Your task to perform on an android device: Open settings Image 0: 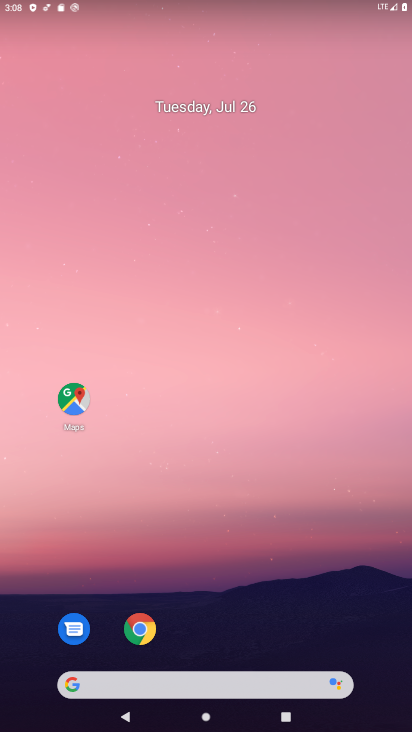
Step 0: drag from (224, 699) to (234, 92)
Your task to perform on an android device: Open settings Image 1: 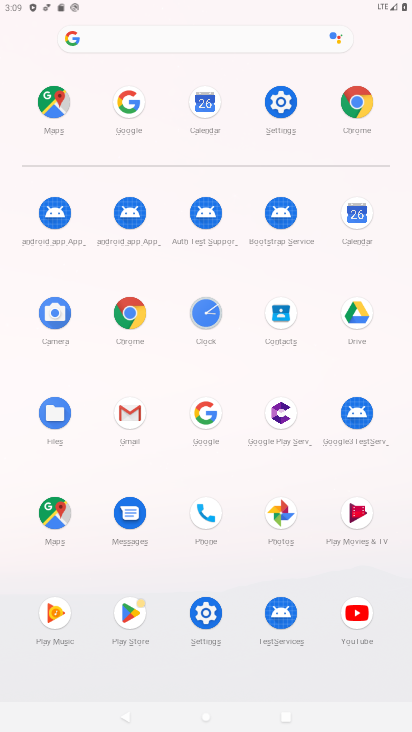
Step 1: click (279, 100)
Your task to perform on an android device: Open settings Image 2: 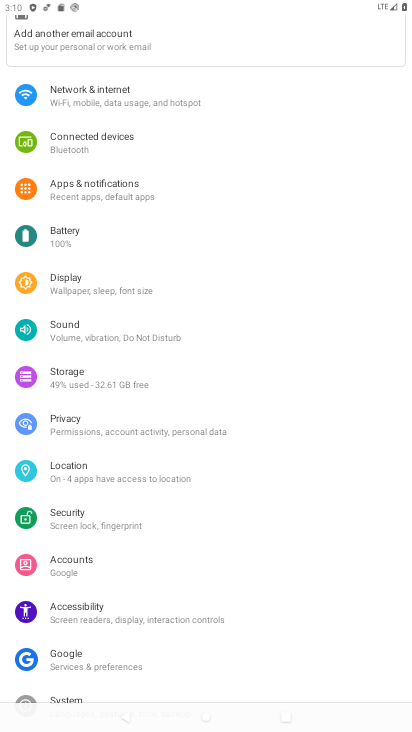
Step 2: task complete